Your task to perform on an android device: Go to notification settings Image 0: 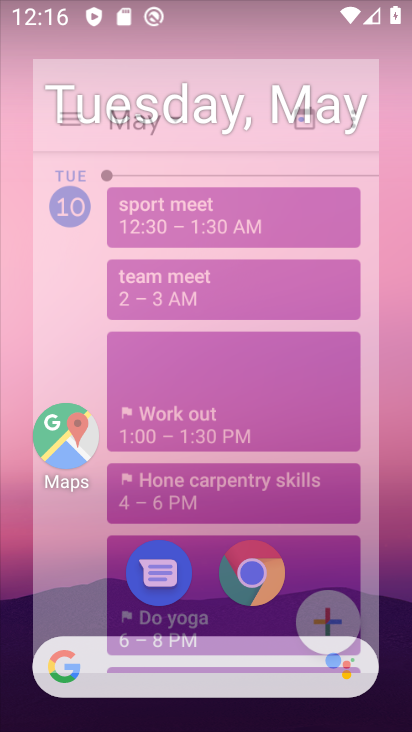
Step 0: drag from (350, 525) to (361, 143)
Your task to perform on an android device: Go to notification settings Image 1: 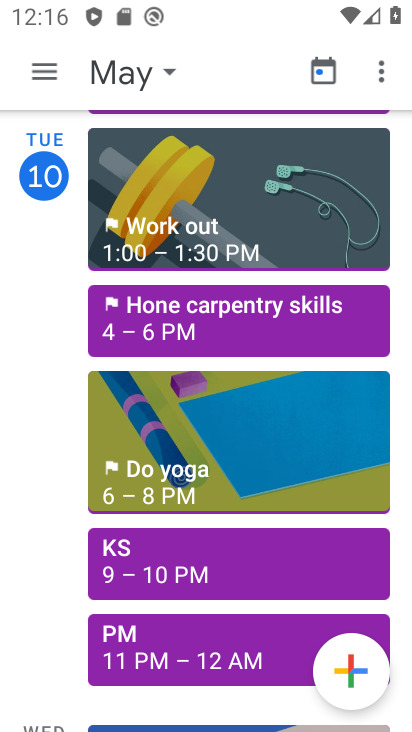
Step 1: press home button
Your task to perform on an android device: Go to notification settings Image 2: 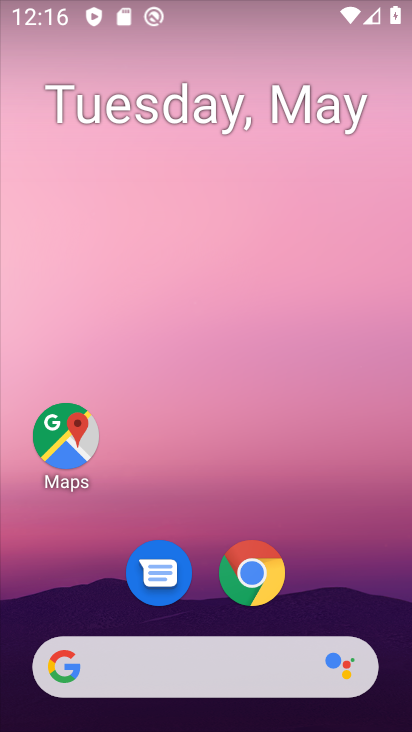
Step 2: drag from (351, 554) to (343, 34)
Your task to perform on an android device: Go to notification settings Image 3: 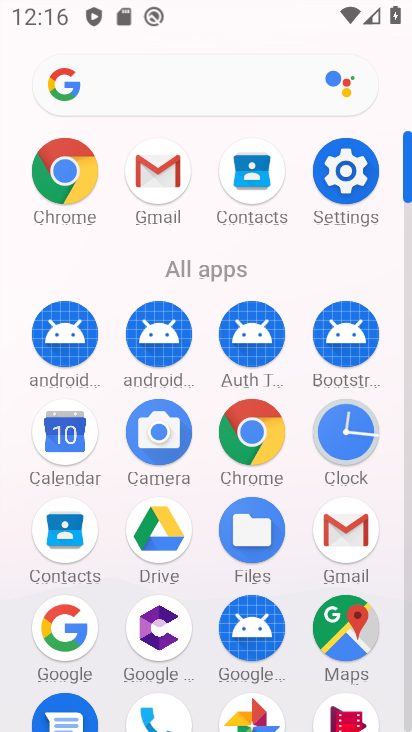
Step 3: click (356, 181)
Your task to perform on an android device: Go to notification settings Image 4: 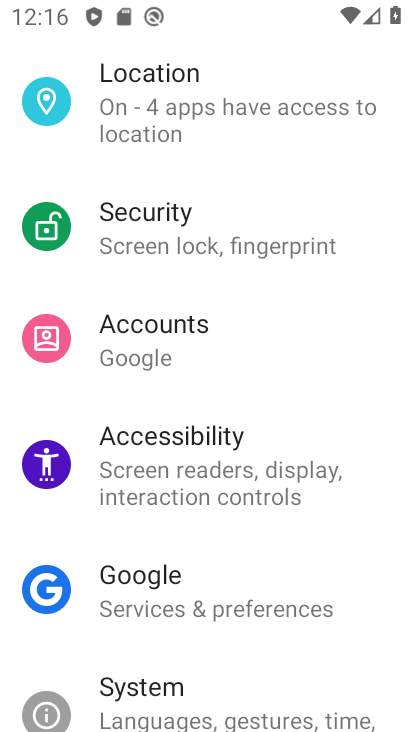
Step 4: drag from (293, 215) to (297, 642)
Your task to perform on an android device: Go to notification settings Image 5: 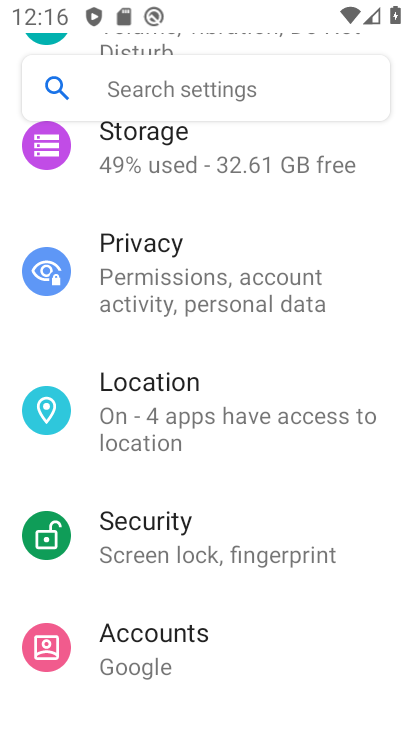
Step 5: drag from (295, 250) to (274, 590)
Your task to perform on an android device: Go to notification settings Image 6: 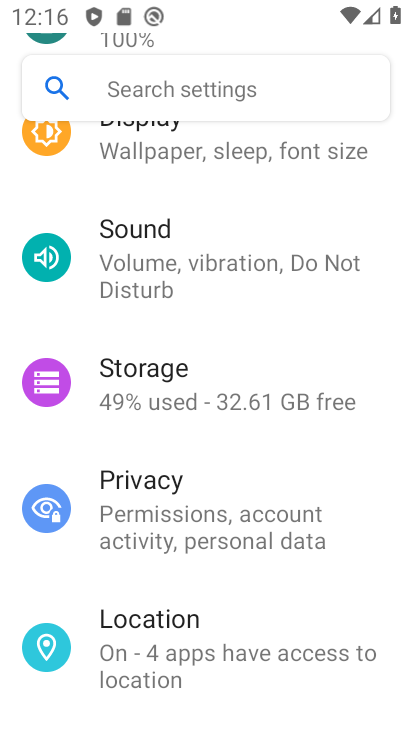
Step 6: drag from (306, 175) to (268, 619)
Your task to perform on an android device: Go to notification settings Image 7: 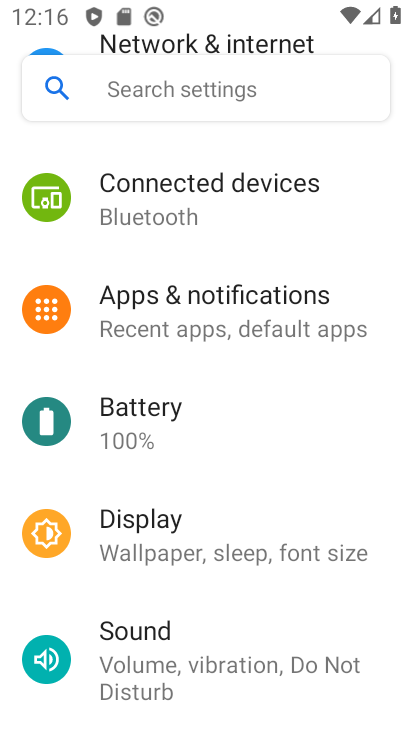
Step 7: click (232, 322)
Your task to perform on an android device: Go to notification settings Image 8: 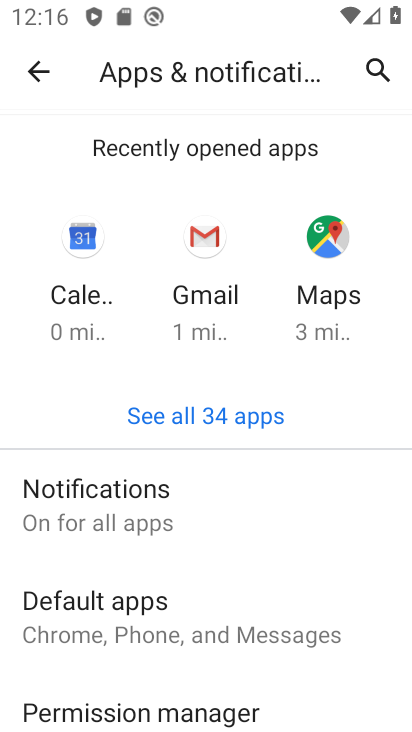
Step 8: click (112, 493)
Your task to perform on an android device: Go to notification settings Image 9: 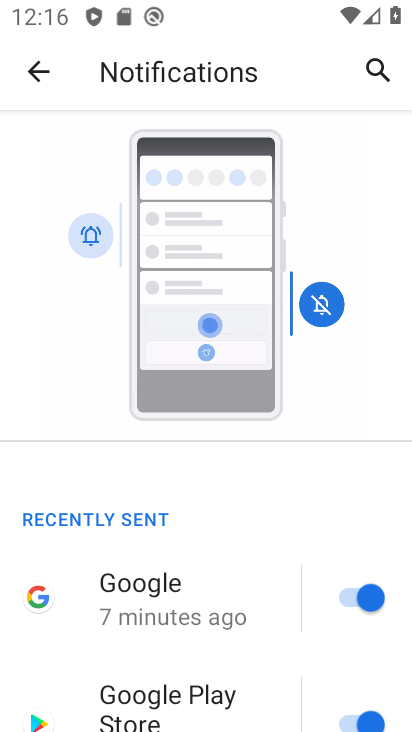
Step 9: task complete